Your task to perform on an android device: What's on my calendar today? Image 0: 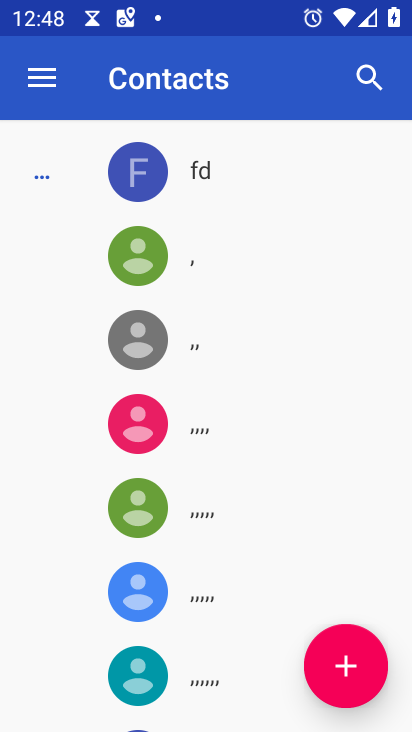
Step 0: press home button
Your task to perform on an android device: What's on my calendar today? Image 1: 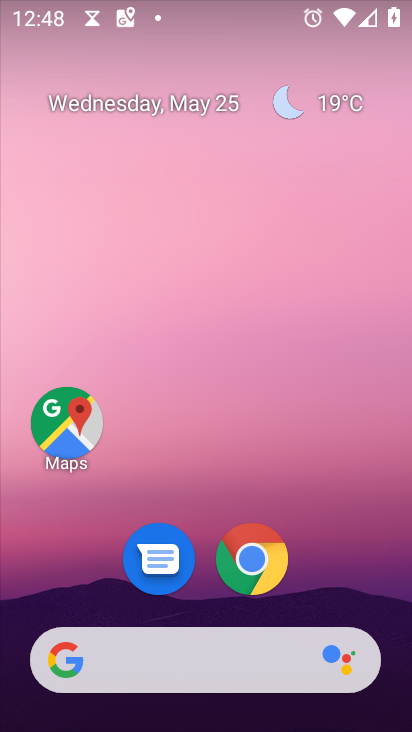
Step 1: drag from (352, 551) to (339, 20)
Your task to perform on an android device: What's on my calendar today? Image 2: 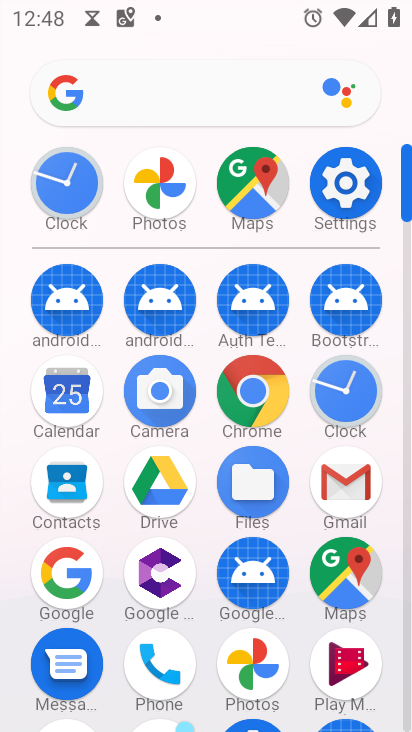
Step 2: click (80, 407)
Your task to perform on an android device: What's on my calendar today? Image 3: 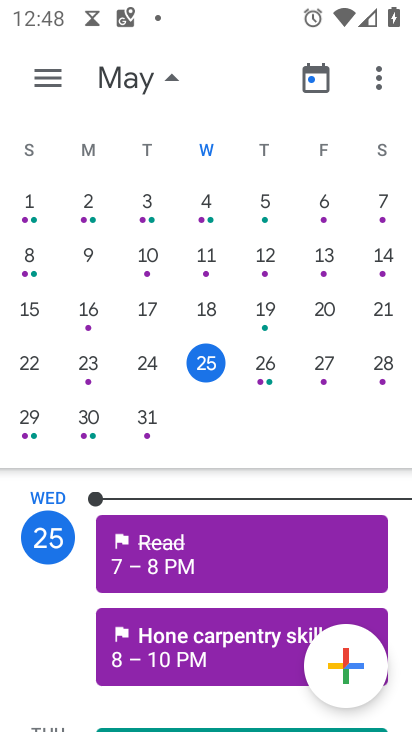
Step 3: task complete